Your task to perform on an android device: Go to ESPN.com Image 0: 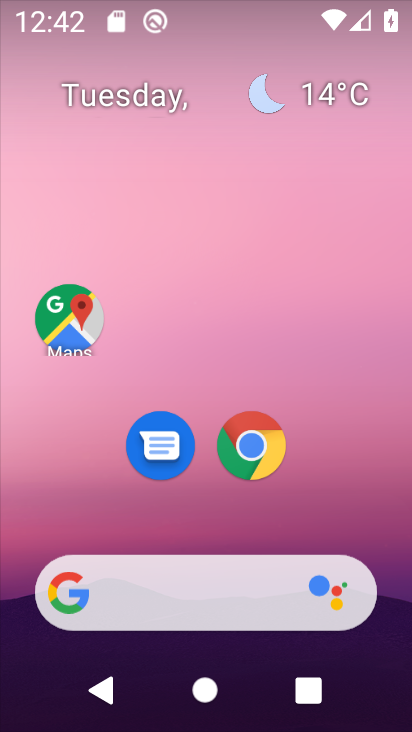
Step 0: drag from (368, 536) to (274, 61)
Your task to perform on an android device: Go to ESPN.com Image 1: 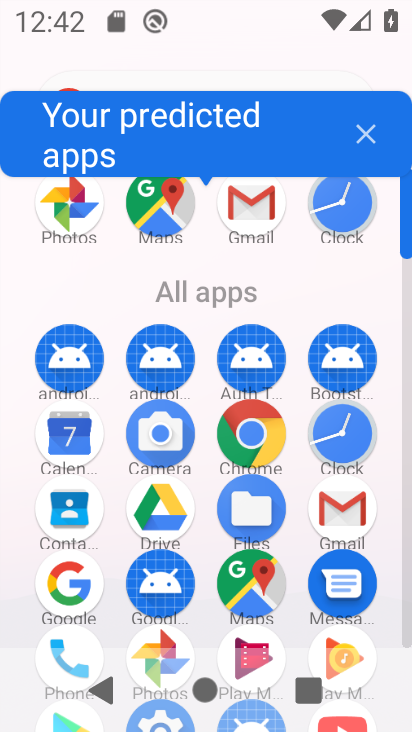
Step 1: drag from (5, 597) to (9, 238)
Your task to perform on an android device: Go to ESPN.com Image 2: 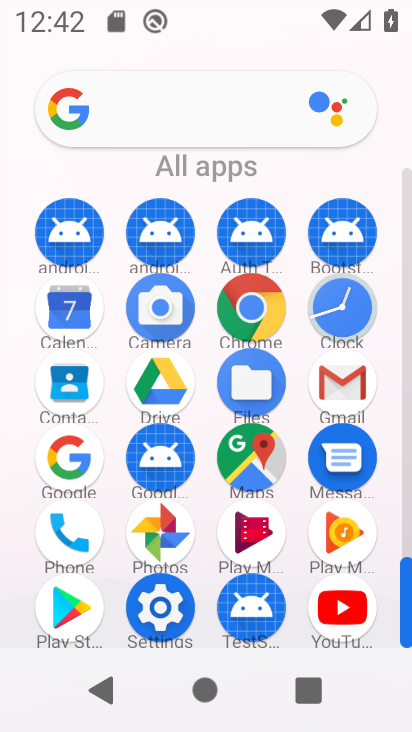
Step 2: click (250, 303)
Your task to perform on an android device: Go to ESPN.com Image 3: 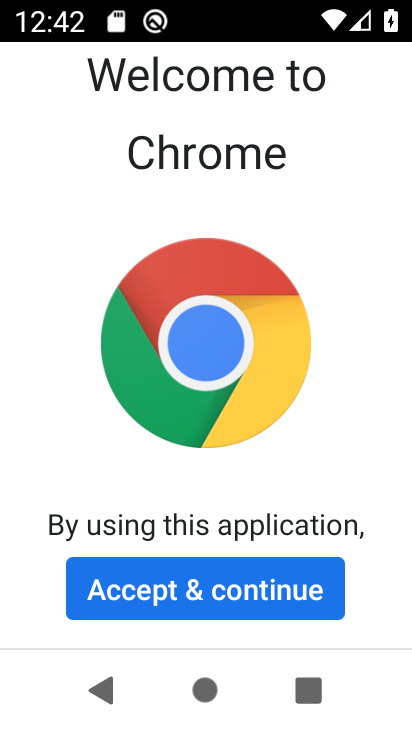
Step 3: click (241, 595)
Your task to perform on an android device: Go to ESPN.com Image 4: 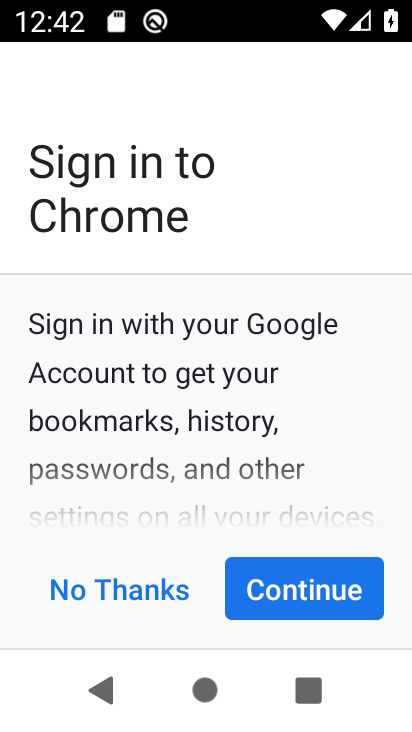
Step 4: click (258, 591)
Your task to perform on an android device: Go to ESPN.com Image 5: 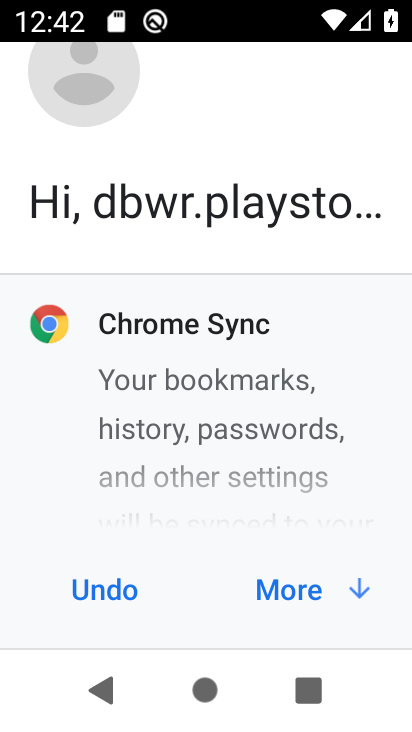
Step 5: click (303, 579)
Your task to perform on an android device: Go to ESPN.com Image 6: 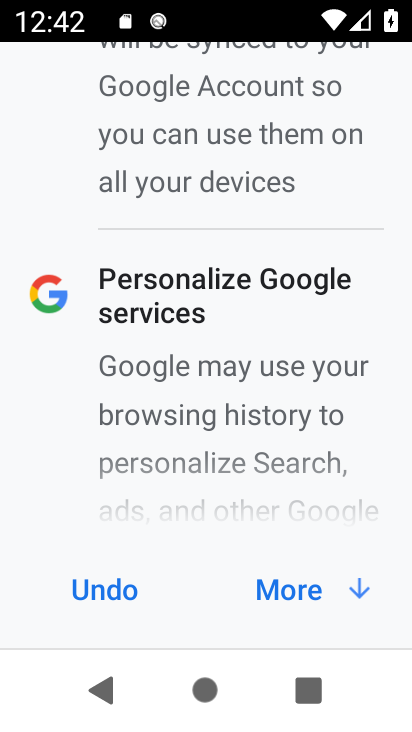
Step 6: click (303, 586)
Your task to perform on an android device: Go to ESPN.com Image 7: 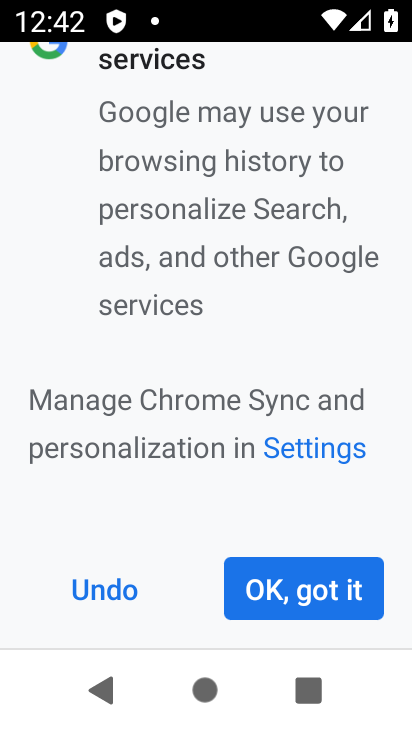
Step 7: click (303, 586)
Your task to perform on an android device: Go to ESPN.com Image 8: 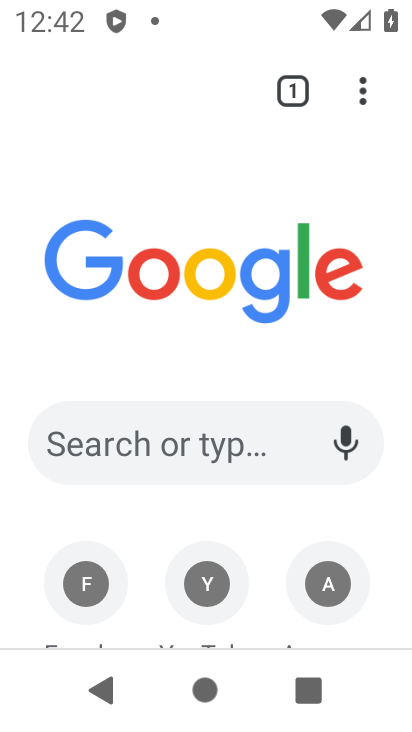
Step 8: click (154, 437)
Your task to perform on an android device: Go to ESPN.com Image 9: 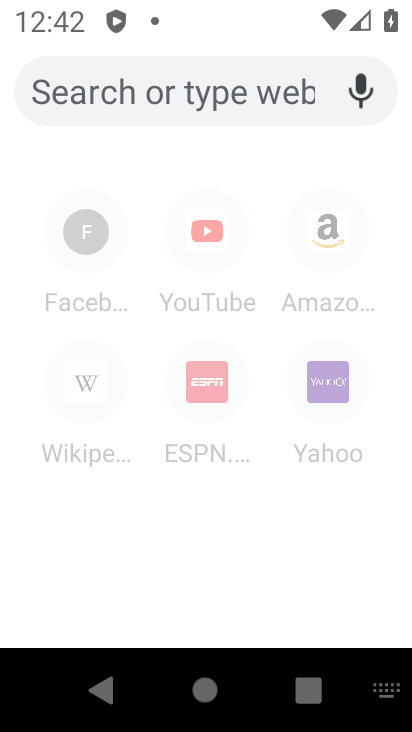
Step 9: press back button
Your task to perform on an android device: Go to ESPN.com Image 10: 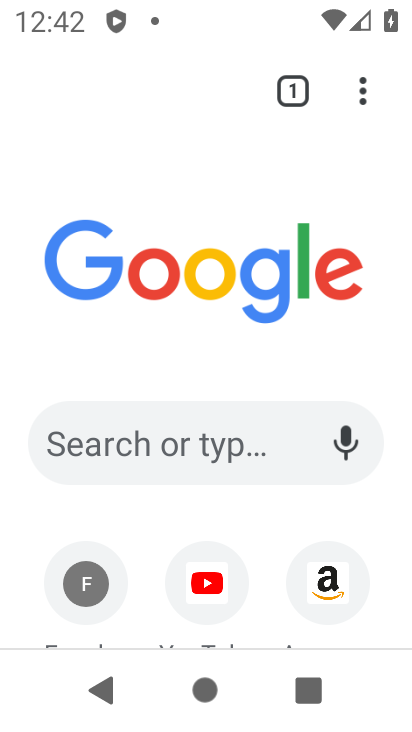
Step 10: drag from (27, 542) to (25, 271)
Your task to perform on an android device: Go to ESPN.com Image 11: 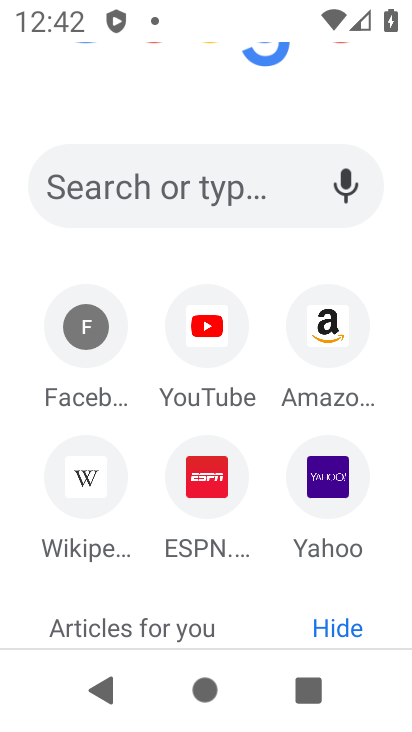
Step 11: click (199, 489)
Your task to perform on an android device: Go to ESPN.com Image 12: 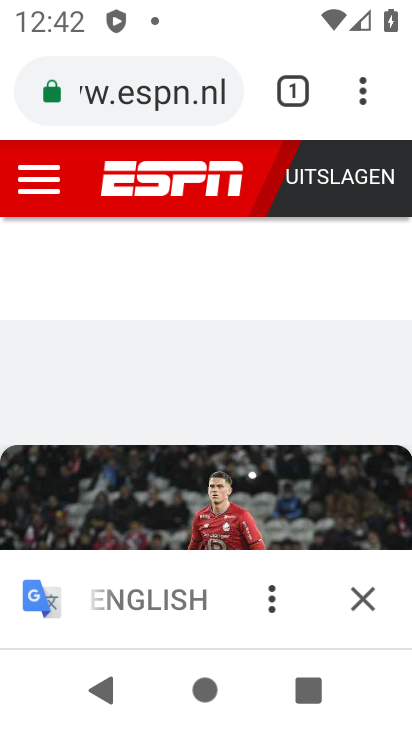
Step 12: drag from (272, 470) to (282, 137)
Your task to perform on an android device: Go to ESPN.com Image 13: 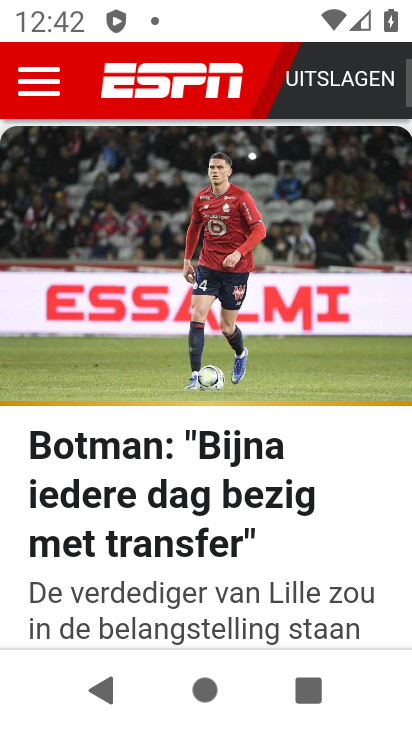
Step 13: drag from (287, 510) to (323, 179)
Your task to perform on an android device: Go to ESPN.com Image 14: 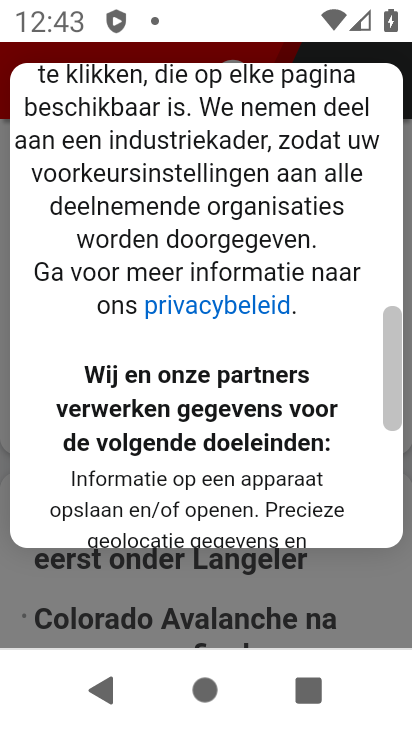
Step 14: click (320, 187)
Your task to perform on an android device: Go to ESPN.com Image 15: 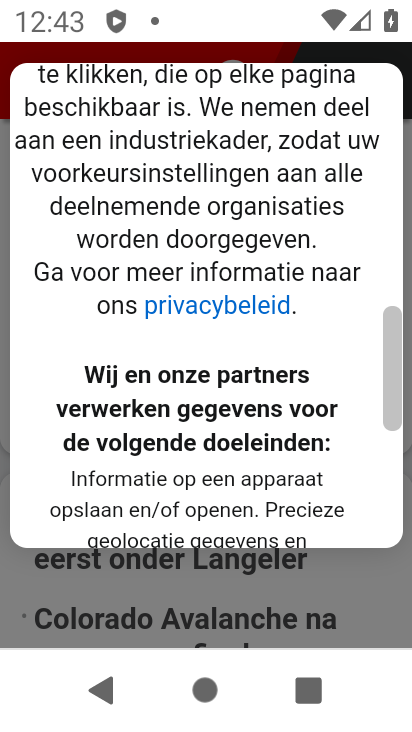
Step 15: task complete